Your task to perform on an android device: Open ESPN.com Image 0: 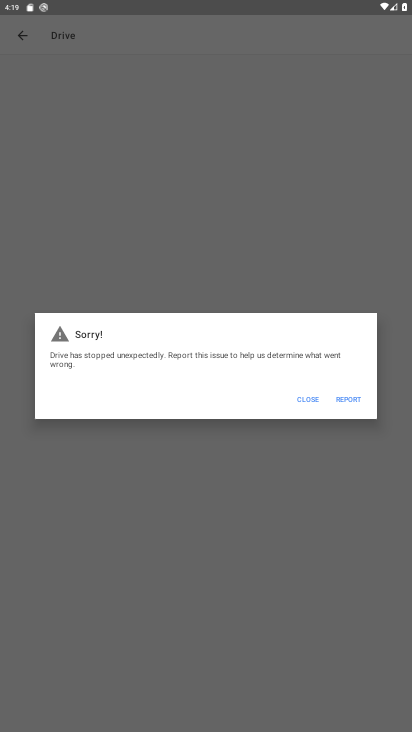
Step 0: press home button
Your task to perform on an android device: Open ESPN.com Image 1: 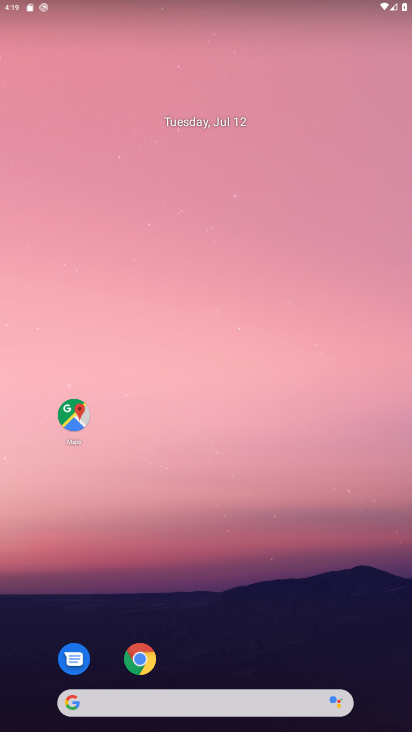
Step 1: click (107, 705)
Your task to perform on an android device: Open ESPN.com Image 2: 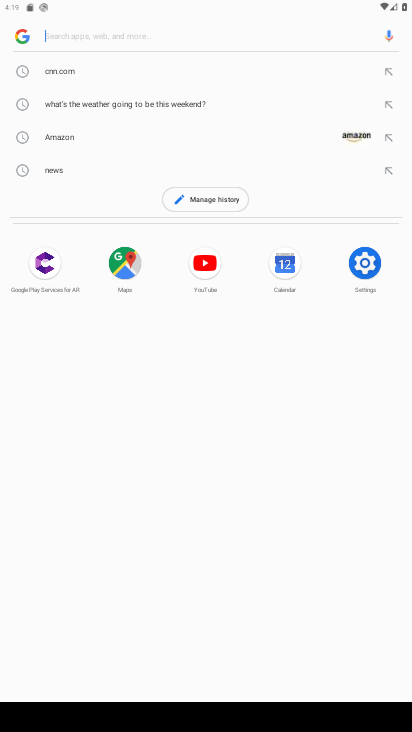
Step 2: type "ESPN.com"
Your task to perform on an android device: Open ESPN.com Image 3: 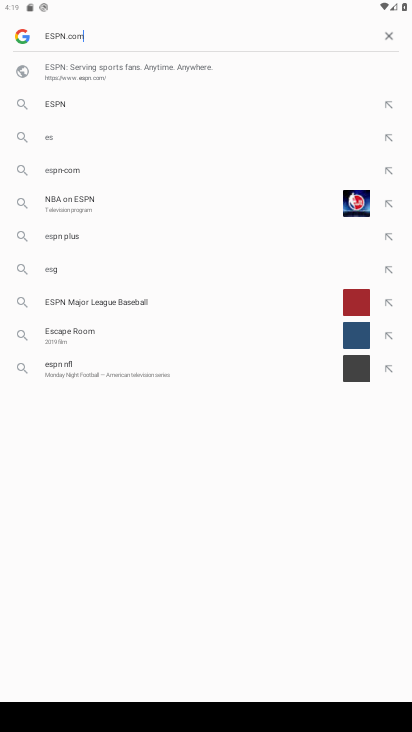
Step 3: type ""
Your task to perform on an android device: Open ESPN.com Image 4: 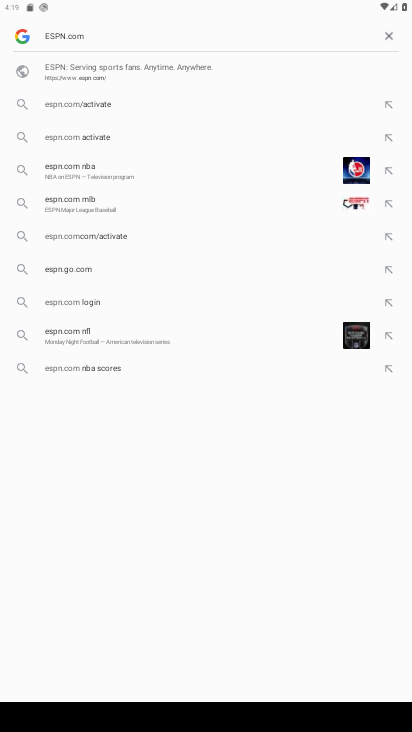
Step 4: type ""
Your task to perform on an android device: Open ESPN.com Image 5: 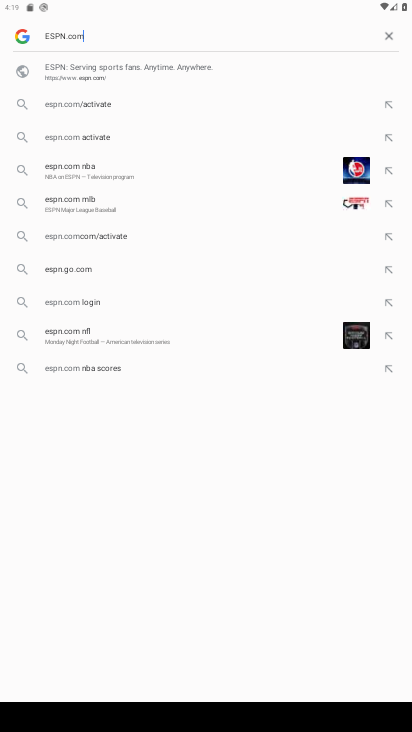
Step 5: type ""
Your task to perform on an android device: Open ESPN.com Image 6: 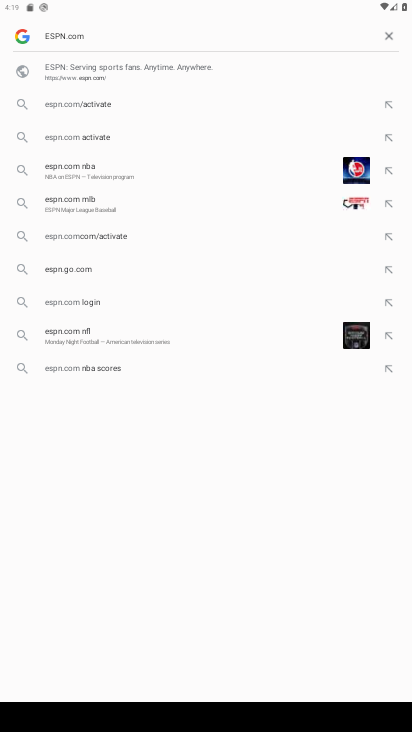
Step 6: task complete